Your task to perform on an android device: Open location settings Image 0: 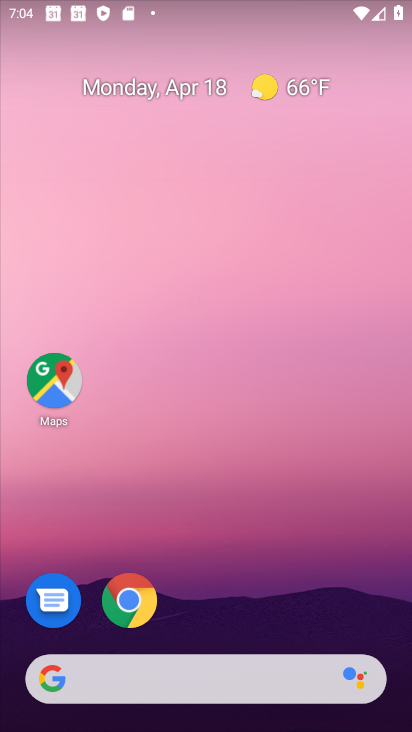
Step 0: drag from (248, 560) to (290, 9)
Your task to perform on an android device: Open location settings Image 1: 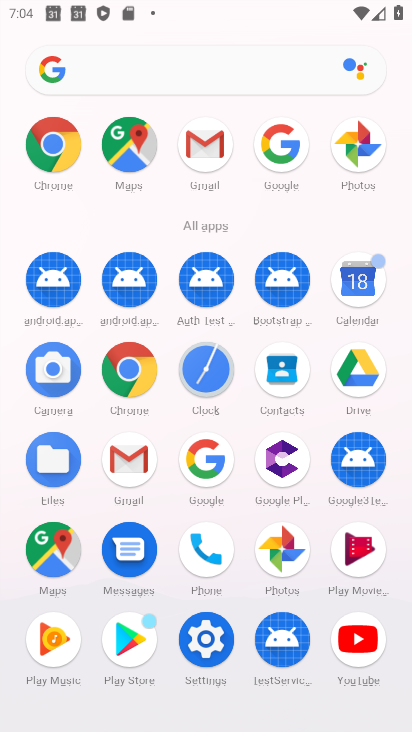
Step 1: click (197, 638)
Your task to perform on an android device: Open location settings Image 2: 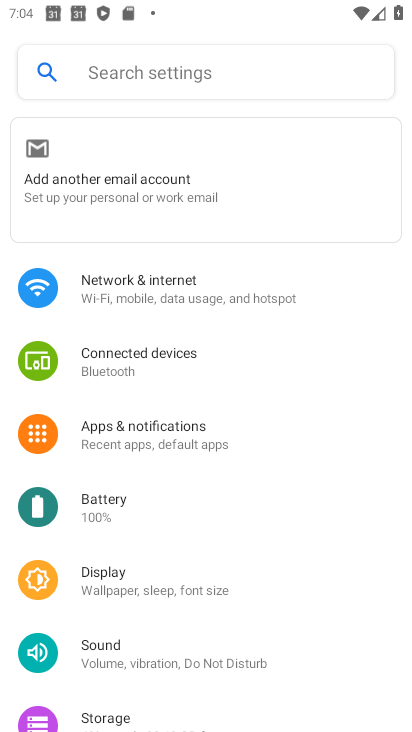
Step 2: drag from (290, 594) to (330, 3)
Your task to perform on an android device: Open location settings Image 3: 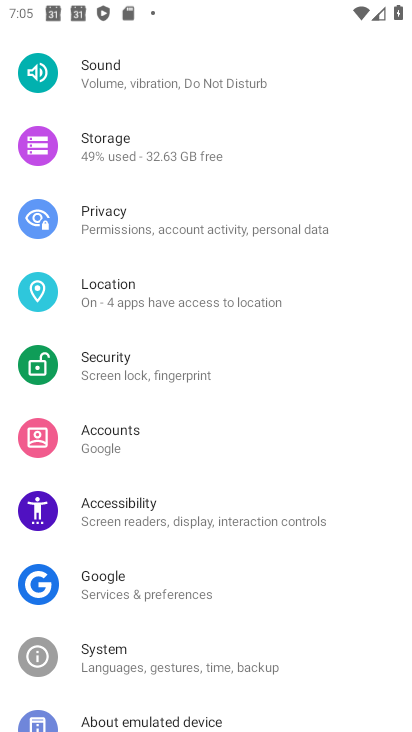
Step 3: click (119, 286)
Your task to perform on an android device: Open location settings Image 4: 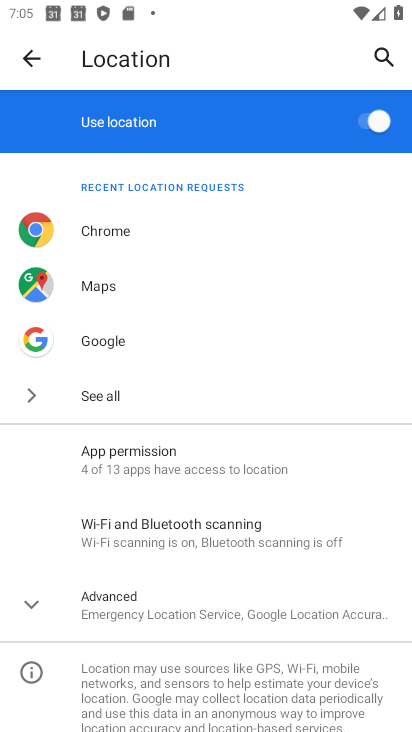
Step 4: task complete